Your task to perform on an android device: show emergency info Image 0: 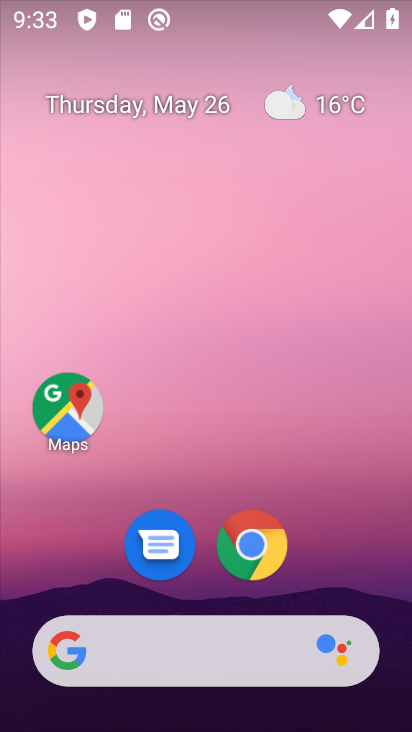
Step 0: drag from (334, 555) to (304, 84)
Your task to perform on an android device: show emergency info Image 1: 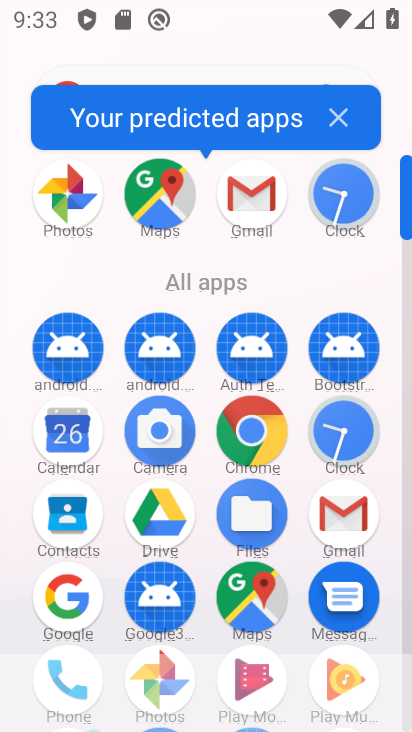
Step 1: drag from (212, 470) to (213, 167)
Your task to perform on an android device: show emergency info Image 2: 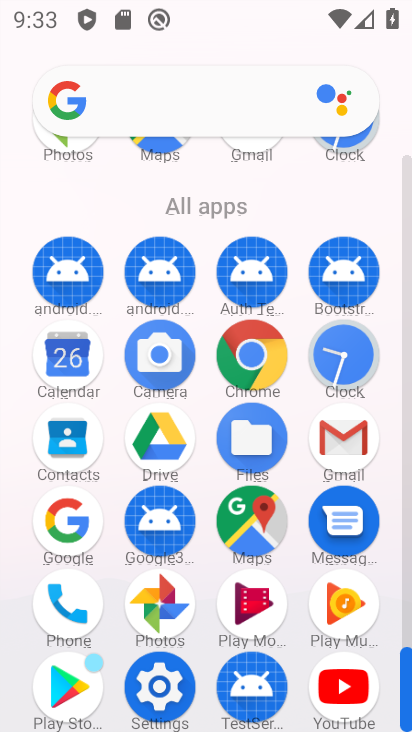
Step 2: click (163, 675)
Your task to perform on an android device: show emergency info Image 3: 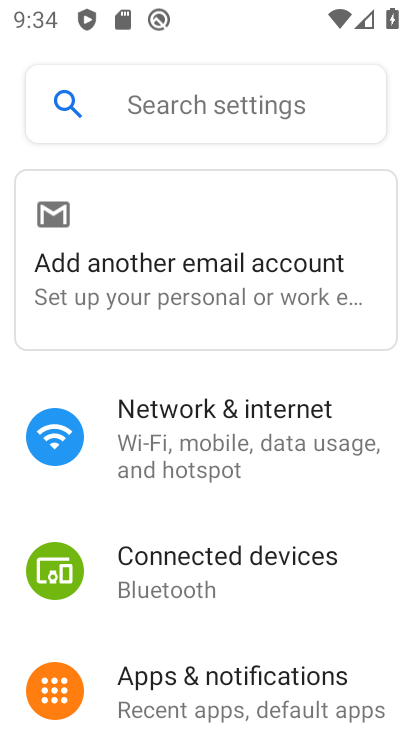
Step 3: drag from (310, 675) to (335, 96)
Your task to perform on an android device: show emergency info Image 4: 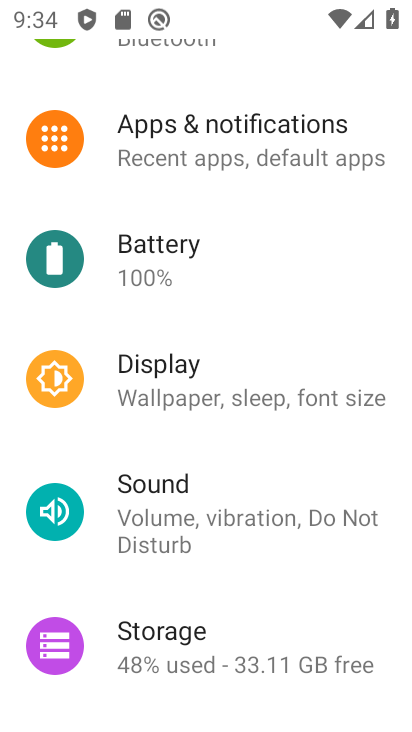
Step 4: drag from (269, 633) to (319, 92)
Your task to perform on an android device: show emergency info Image 5: 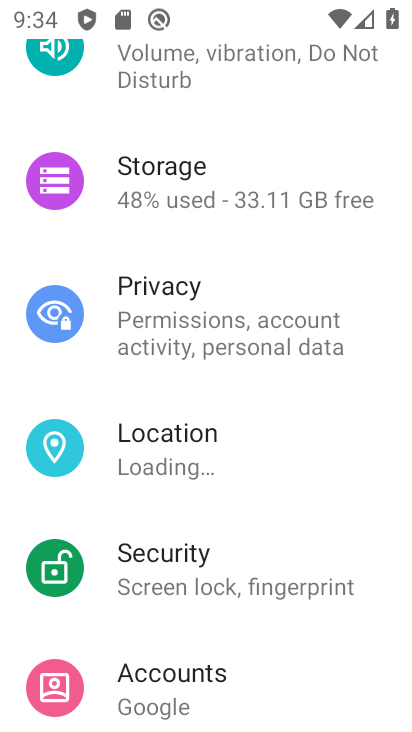
Step 5: drag from (342, 663) to (355, 125)
Your task to perform on an android device: show emergency info Image 6: 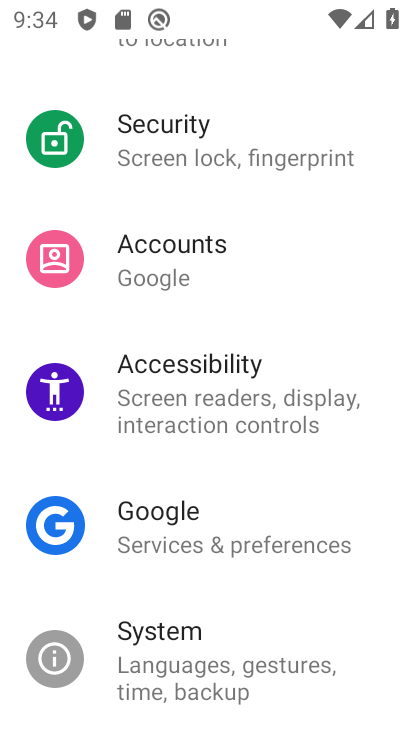
Step 6: drag from (316, 671) to (283, 112)
Your task to perform on an android device: show emergency info Image 7: 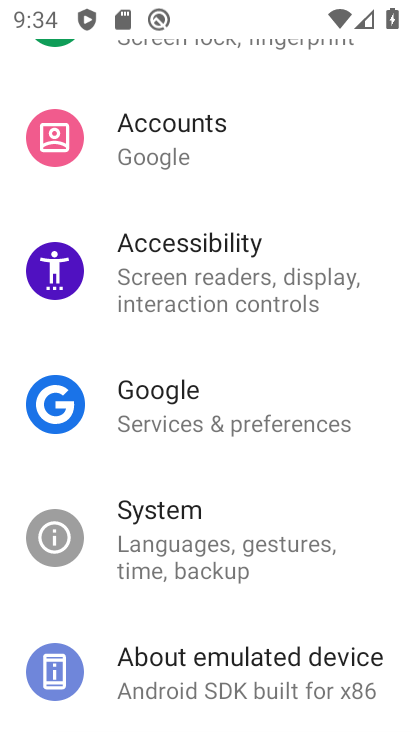
Step 7: click (125, 664)
Your task to perform on an android device: show emergency info Image 8: 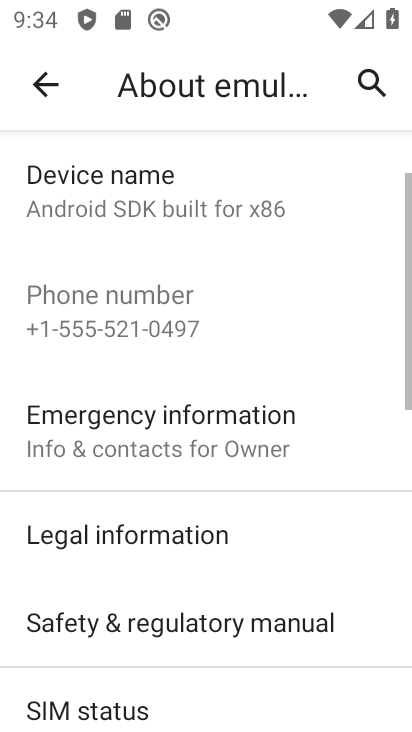
Step 8: click (169, 431)
Your task to perform on an android device: show emergency info Image 9: 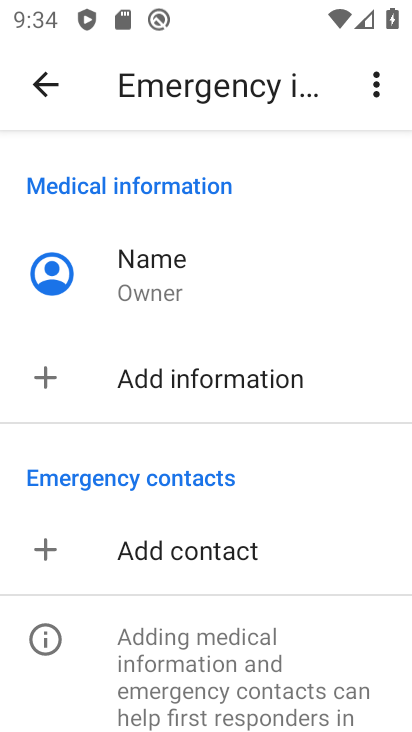
Step 9: task complete